Your task to perform on an android device: Open Google Chrome and click the shortcut for Amazon.com Image 0: 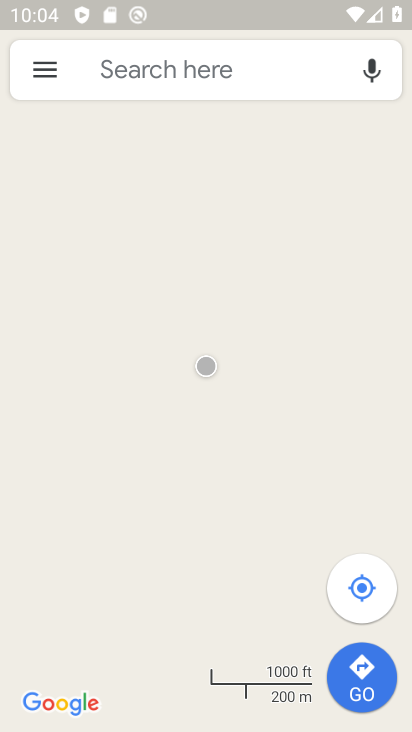
Step 0: press home button
Your task to perform on an android device: Open Google Chrome and click the shortcut for Amazon.com Image 1: 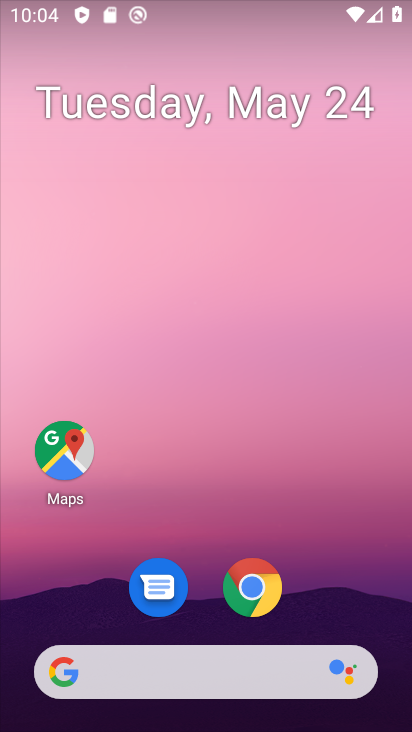
Step 1: click (270, 594)
Your task to perform on an android device: Open Google Chrome and click the shortcut for Amazon.com Image 2: 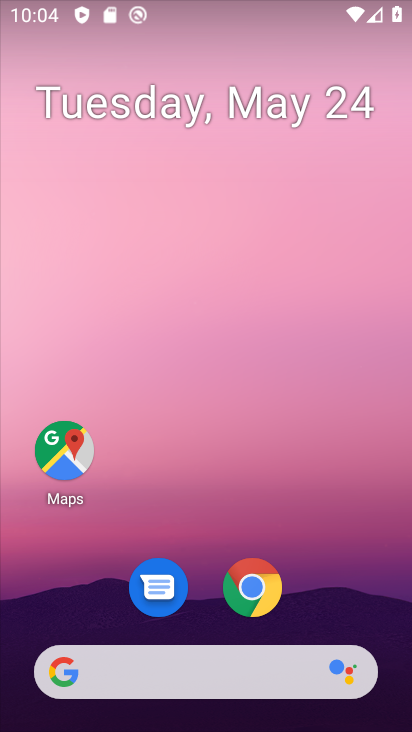
Step 2: click (270, 594)
Your task to perform on an android device: Open Google Chrome and click the shortcut for Amazon.com Image 3: 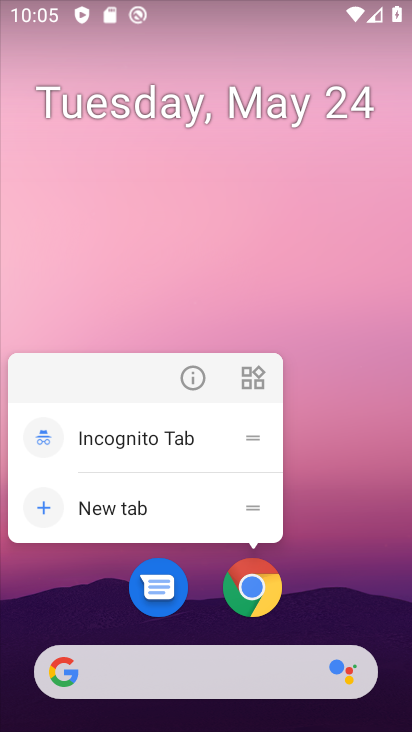
Step 3: click (262, 581)
Your task to perform on an android device: Open Google Chrome and click the shortcut for Amazon.com Image 4: 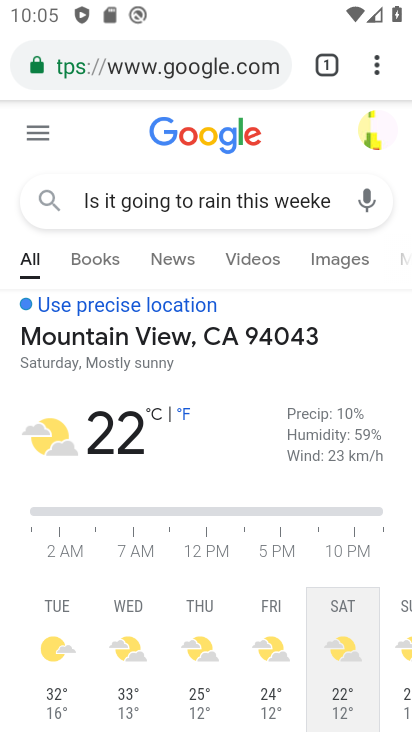
Step 4: drag from (379, 52) to (373, 10)
Your task to perform on an android device: Open Google Chrome and click the shortcut for Amazon.com Image 5: 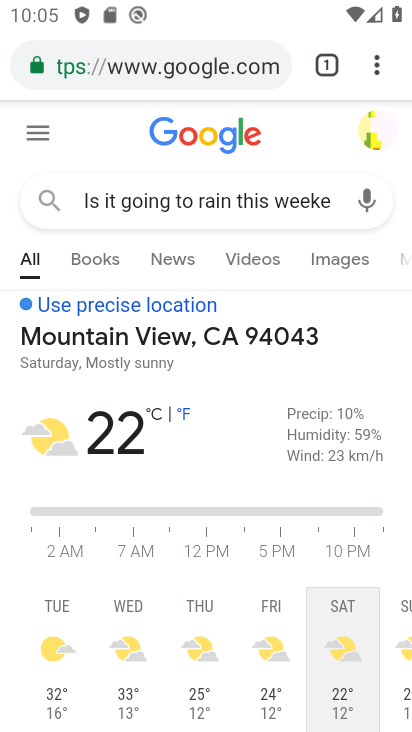
Step 5: click (127, 70)
Your task to perform on an android device: Open Google Chrome and click the shortcut for Amazon.com Image 6: 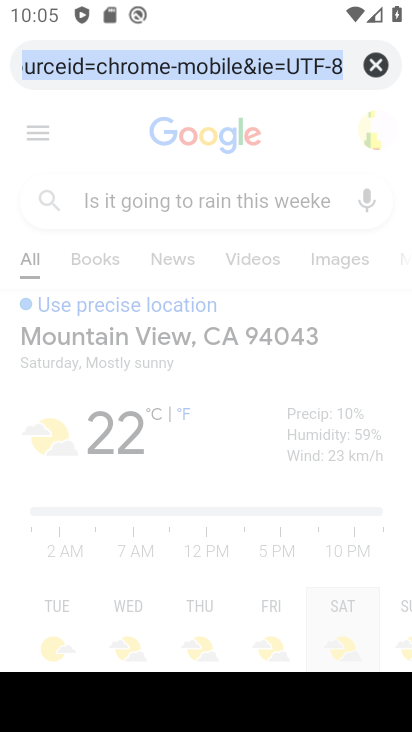
Step 6: click (383, 66)
Your task to perform on an android device: Open Google Chrome and click the shortcut for Amazon.com Image 7: 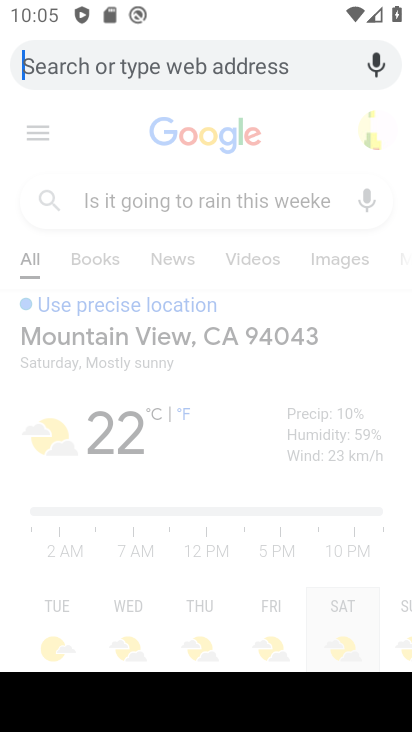
Step 7: click (259, 58)
Your task to perform on an android device: Open Google Chrome and click the shortcut for Amazon.com Image 8: 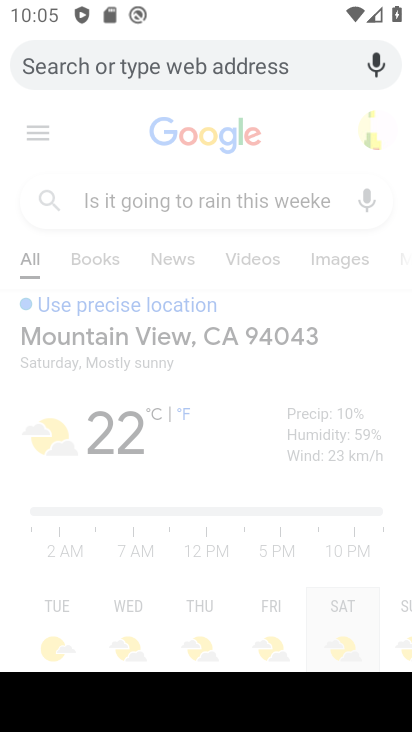
Step 8: type "Amazon.co"
Your task to perform on an android device: Open Google Chrome and click the shortcut for Amazon.com Image 9: 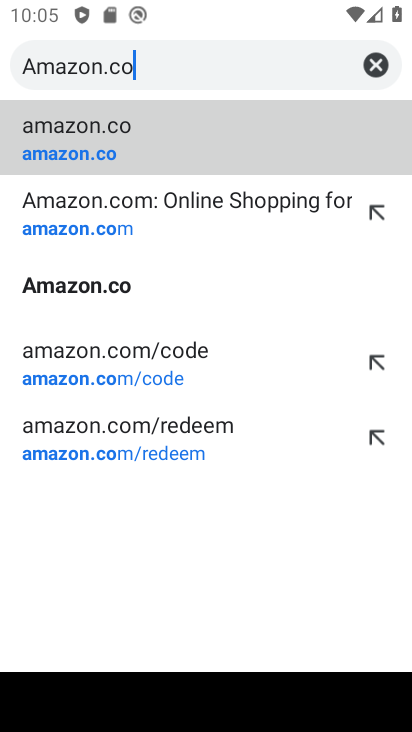
Step 9: click (184, 200)
Your task to perform on an android device: Open Google Chrome and click the shortcut for Amazon.com Image 10: 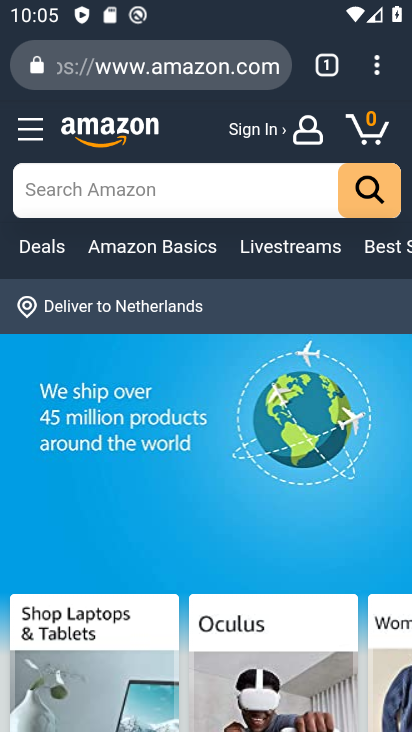
Step 10: task complete